Your task to perform on an android device: read, delete, or share a saved page in the chrome app Image 0: 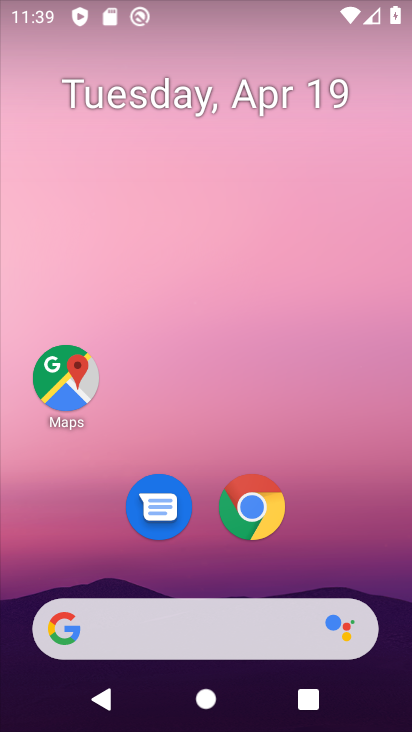
Step 0: drag from (371, 522) to (358, 141)
Your task to perform on an android device: read, delete, or share a saved page in the chrome app Image 1: 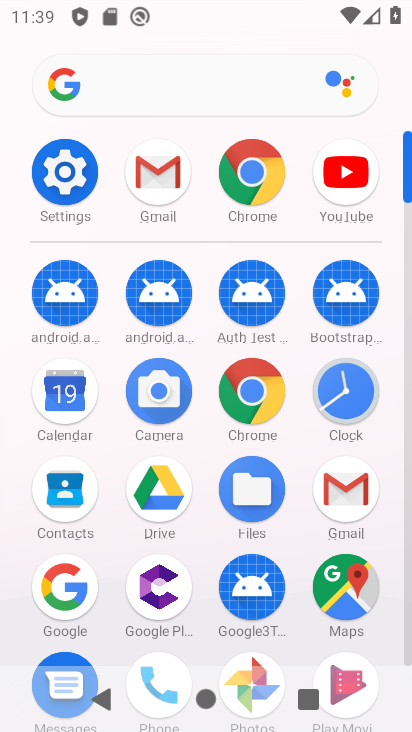
Step 1: click (270, 390)
Your task to perform on an android device: read, delete, or share a saved page in the chrome app Image 2: 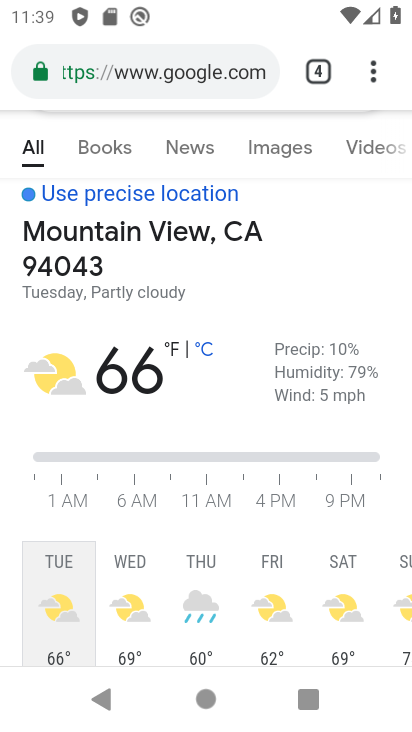
Step 2: click (379, 67)
Your task to perform on an android device: read, delete, or share a saved page in the chrome app Image 3: 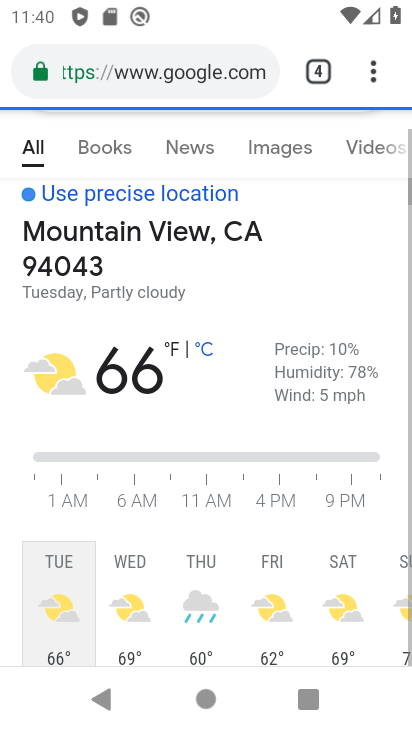
Step 3: task complete